Your task to perform on an android device: Open battery settings Image 0: 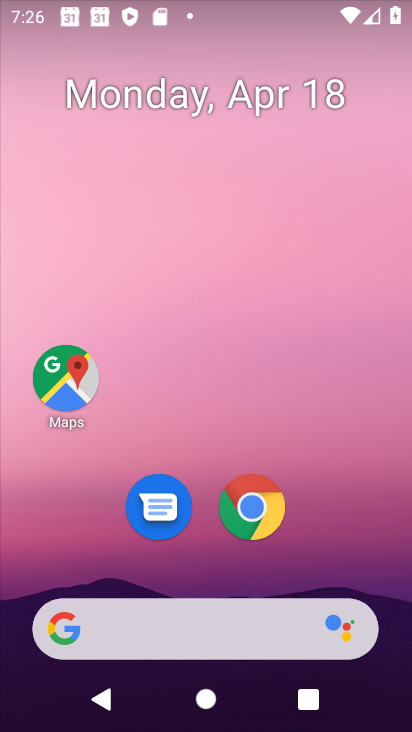
Step 0: drag from (6, 534) to (205, 28)
Your task to perform on an android device: Open battery settings Image 1: 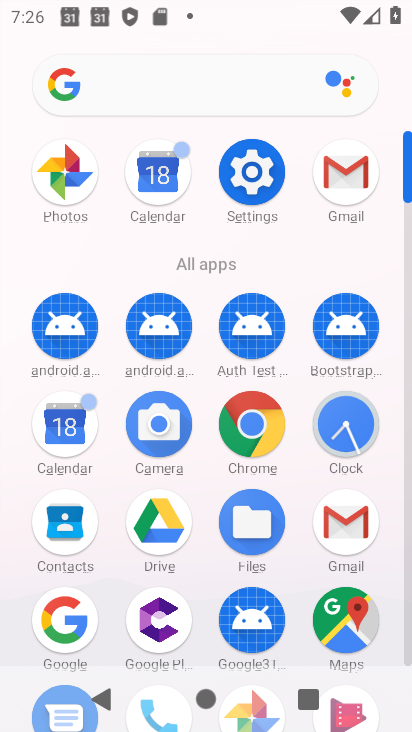
Step 1: click (244, 155)
Your task to perform on an android device: Open battery settings Image 2: 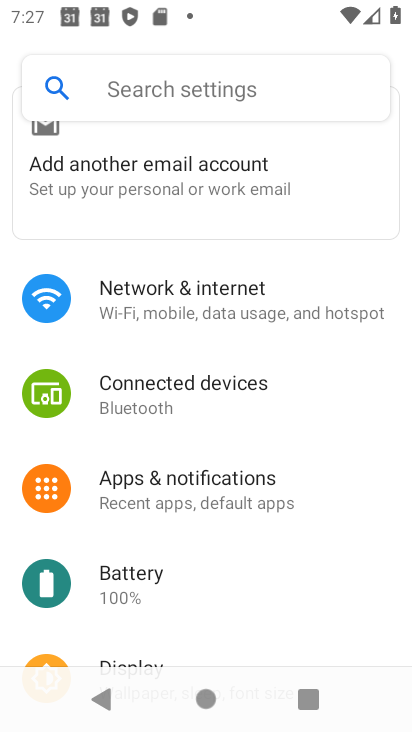
Step 2: click (132, 597)
Your task to perform on an android device: Open battery settings Image 3: 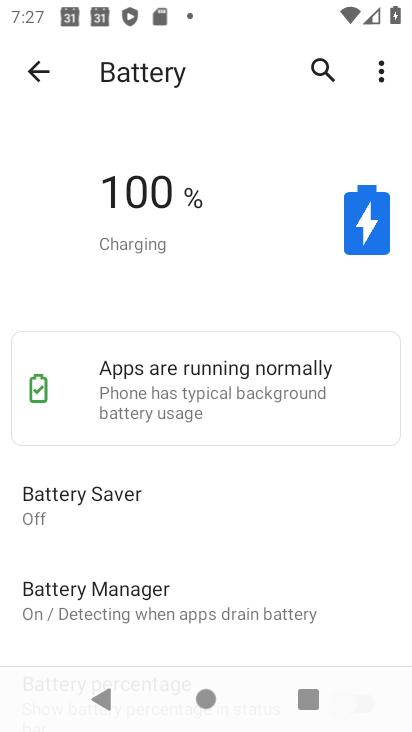
Step 3: task complete